Your task to perform on an android device: turn off airplane mode Image 0: 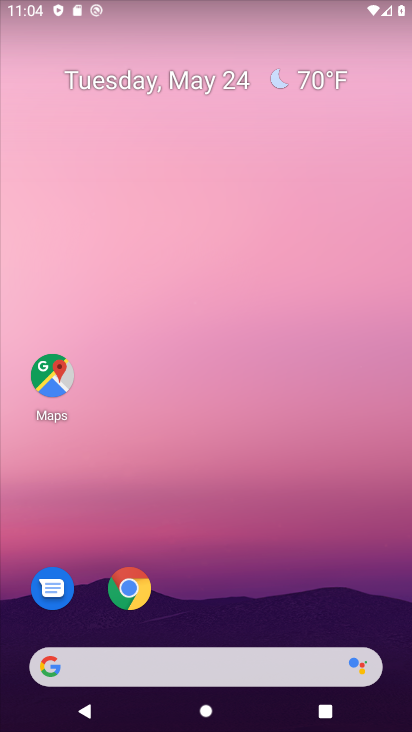
Step 0: drag from (310, 7) to (234, 708)
Your task to perform on an android device: turn off airplane mode Image 1: 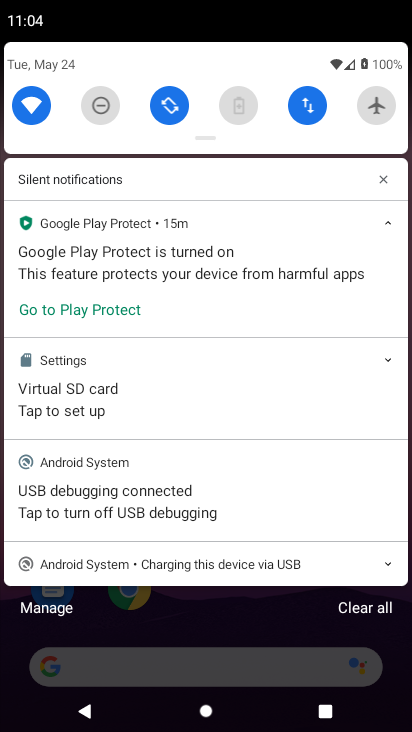
Step 1: task complete